Your task to perform on an android device: open device folders in google photos Image 0: 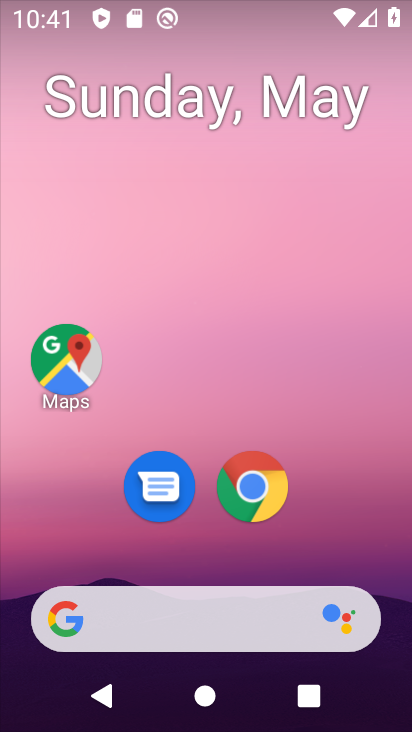
Step 0: drag from (381, 550) to (321, 63)
Your task to perform on an android device: open device folders in google photos Image 1: 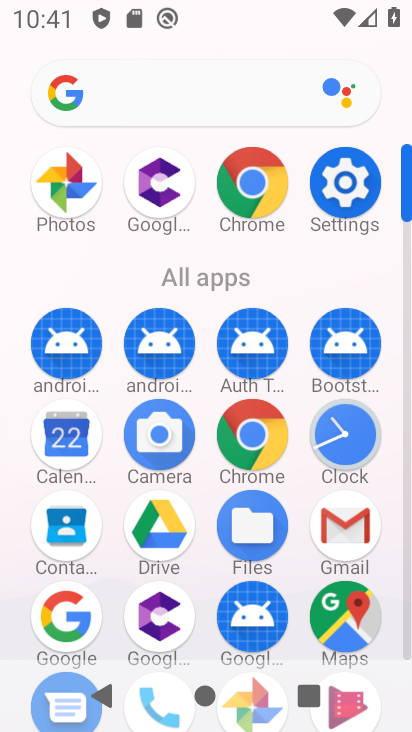
Step 1: click (74, 196)
Your task to perform on an android device: open device folders in google photos Image 2: 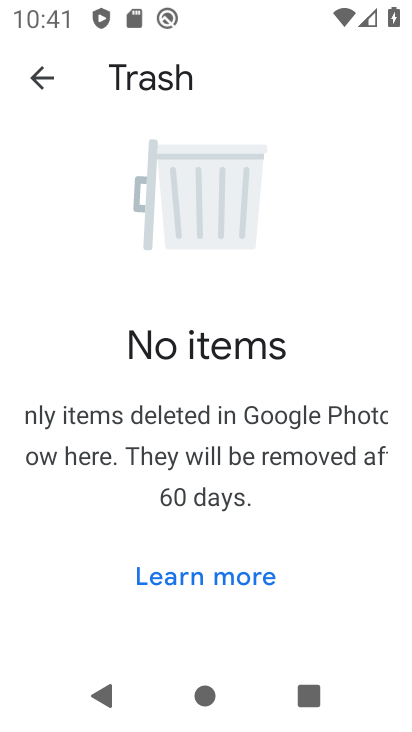
Step 2: click (42, 89)
Your task to perform on an android device: open device folders in google photos Image 3: 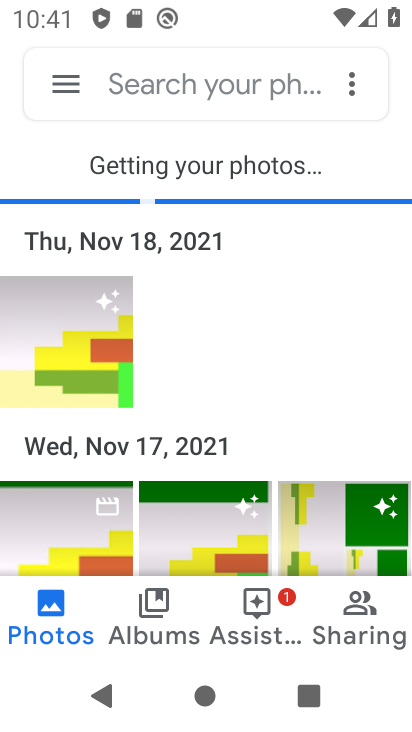
Step 3: click (60, 85)
Your task to perform on an android device: open device folders in google photos Image 4: 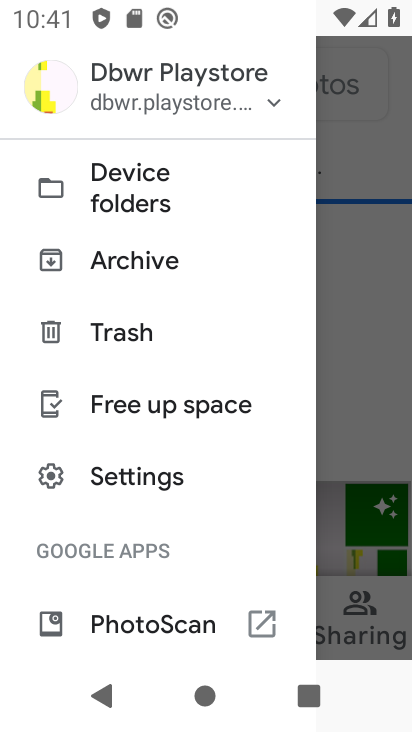
Step 4: click (105, 178)
Your task to perform on an android device: open device folders in google photos Image 5: 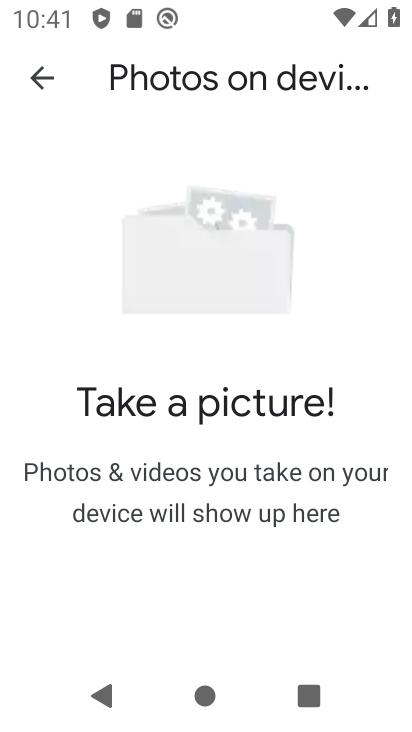
Step 5: task complete